Your task to perform on an android device: Go to CNN.com Image 0: 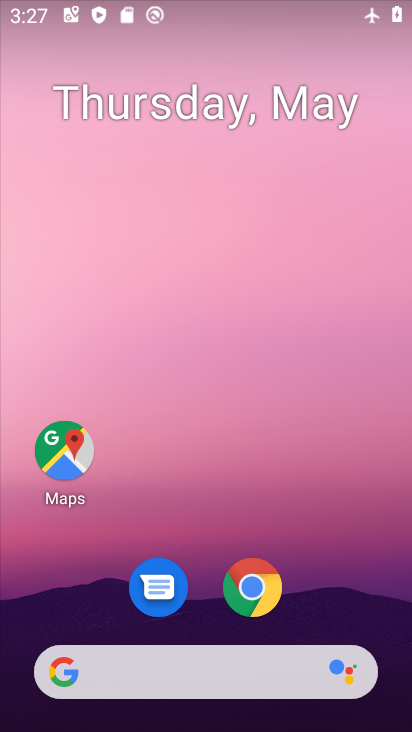
Step 0: drag from (263, 418) to (276, 171)
Your task to perform on an android device: Go to CNN.com Image 1: 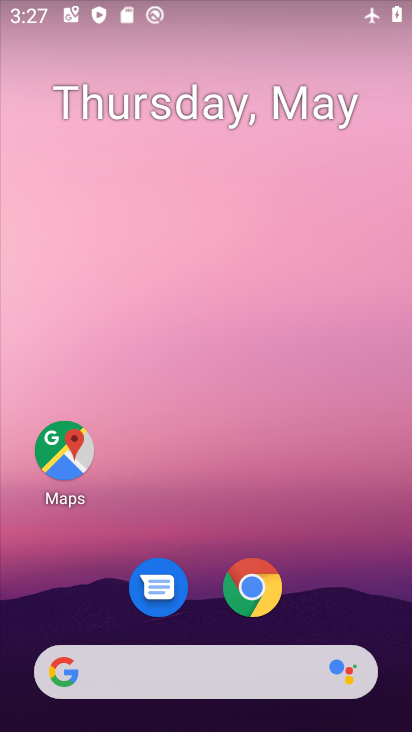
Step 1: drag from (195, 566) to (201, 379)
Your task to perform on an android device: Go to CNN.com Image 2: 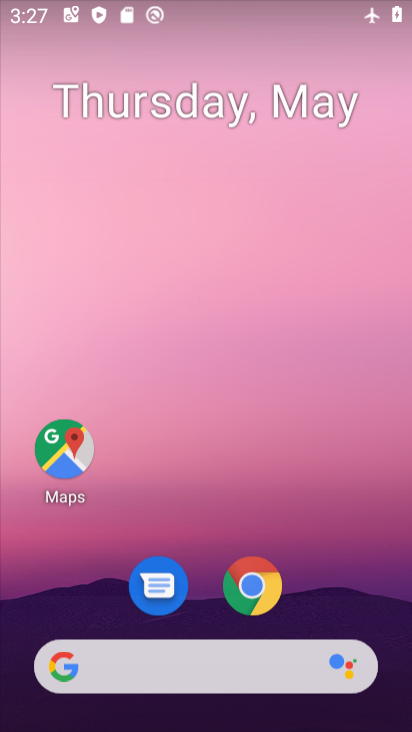
Step 2: click (205, 262)
Your task to perform on an android device: Go to CNN.com Image 3: 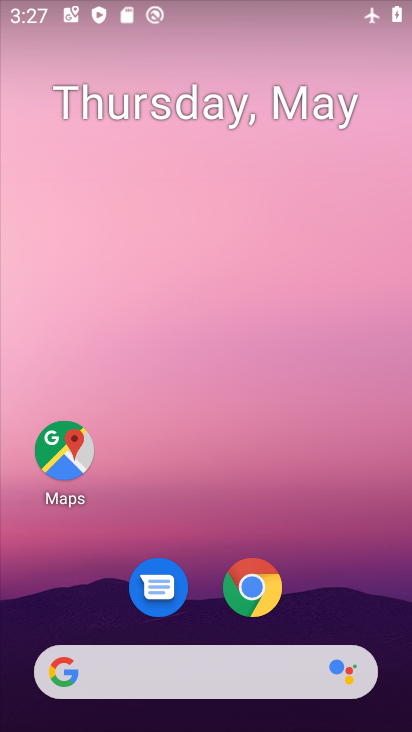
Step 3: click (240, 594)
Your task to perform on an android device: Go to CNN.com Image 4: 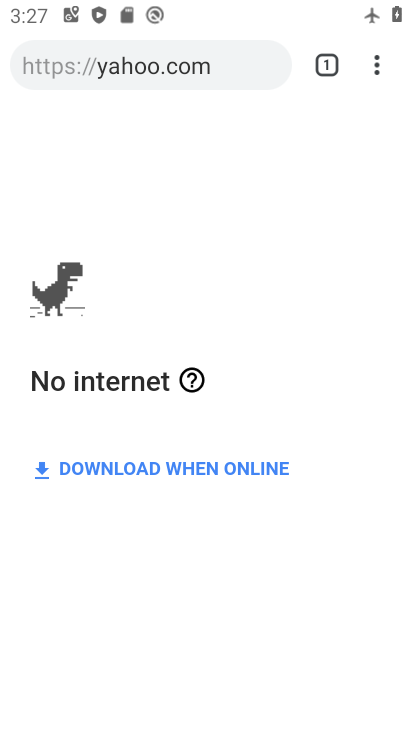
Step 4: click (237, 65)
Your task to perform on an android device: Go to CNN.com Image 5: 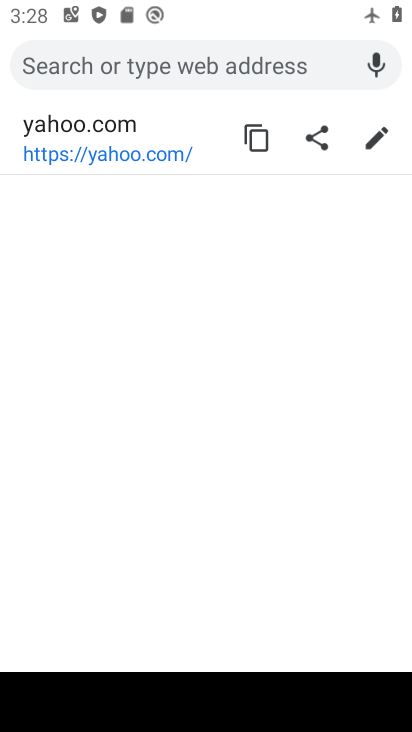
Step 5: task complete